Your task to perform on an android device: clear all cookies in the chrome app Image 0: 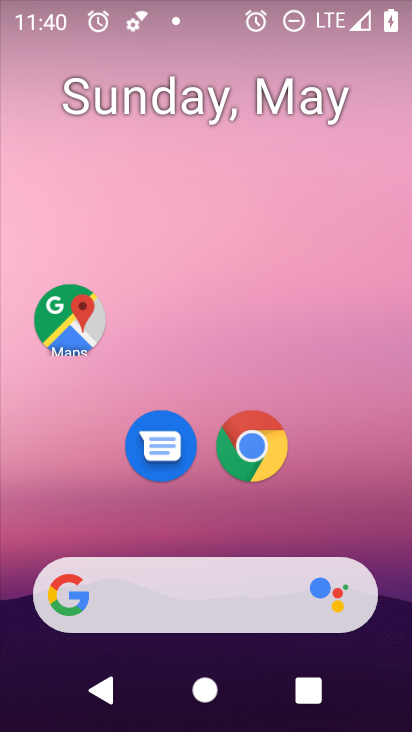
Step 0: drag from (317, 448) to (234, 27)
Your task to perform on an android device: clear all cookies in the chrome app Image 1: 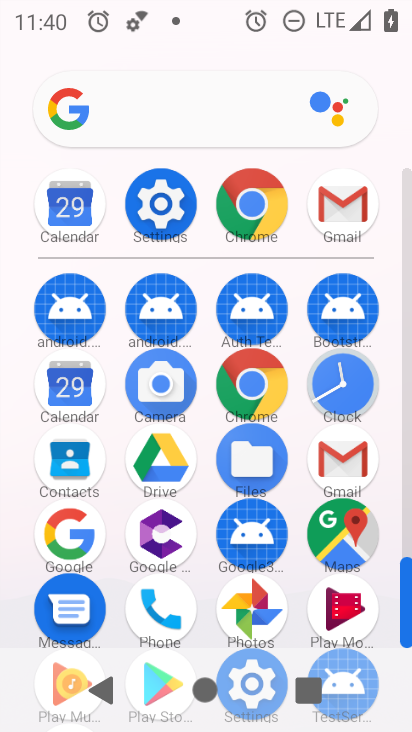
Step 1: drag from (16, 517) to (7, 240)
Your task to perform on an android device: clear all cookies in the chrome app Image 2: 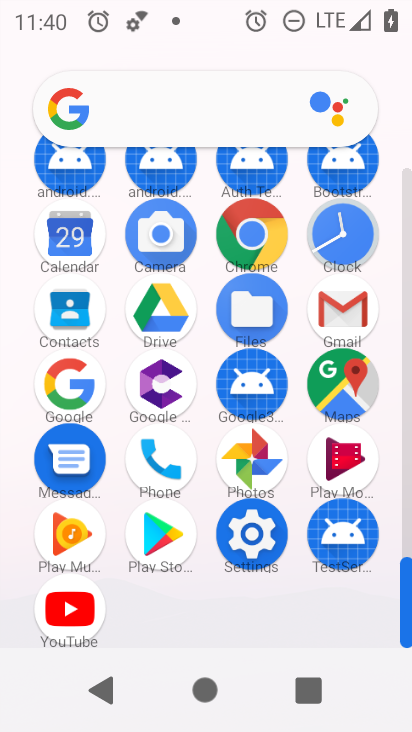
Step 2: click (246, 226)
Your task to perform on an android device: clear all cookies in the chrome app Image 3: 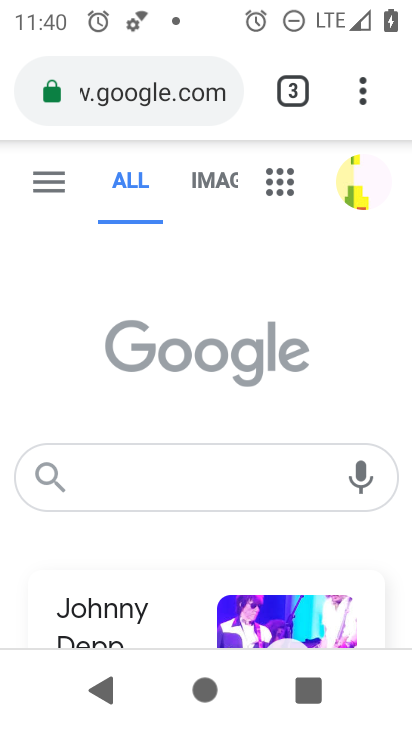
Step 3: drag from (361, 90) to (160, 471)
Your task to perform on an android device: clear all cookies in the chrome app Image 4: 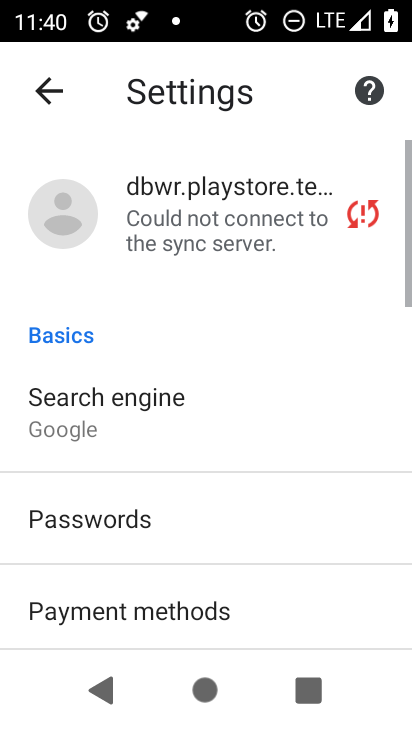
Step 4: drag from (209, 526) to (189, 163)
Your task to perform on an android device: clear all cookies in the chrome app Image 5: 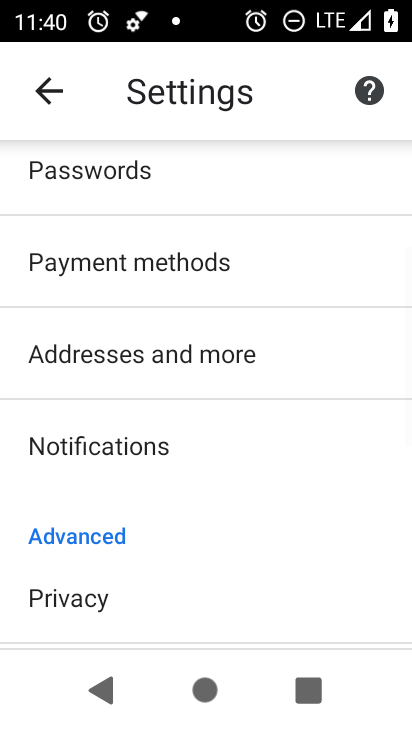
Step 5: drag from (250, 602) to (264, 201)
Your task to perform on an android device: clear all cookies in the chrome app Image 6: 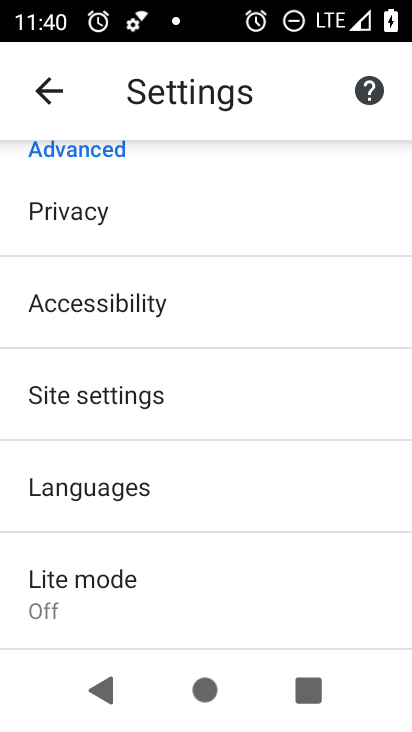
Step 6: drag from (269, 499) to (269, 263)
Your task to perform on an android device: clear all cookies in the chrome app Image 7: 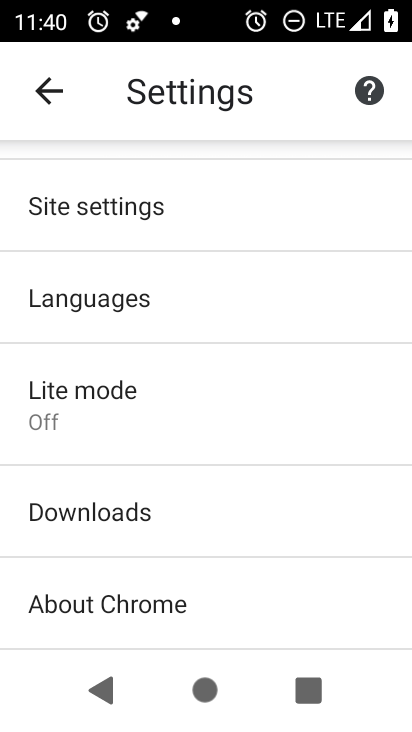
Step 7: click (213, 220)
Your task to perform on an android device: clear all cookies in the chrome app Image 8: 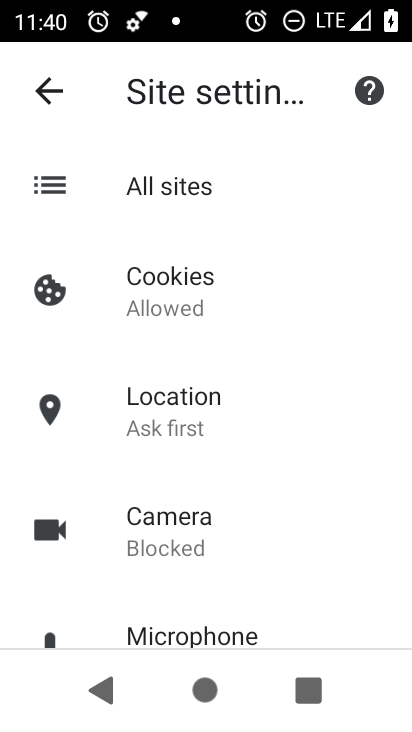
Step 8: click (214, 296)
Your task to perform on an android device: clear all cookies in the chrome app Image 9: 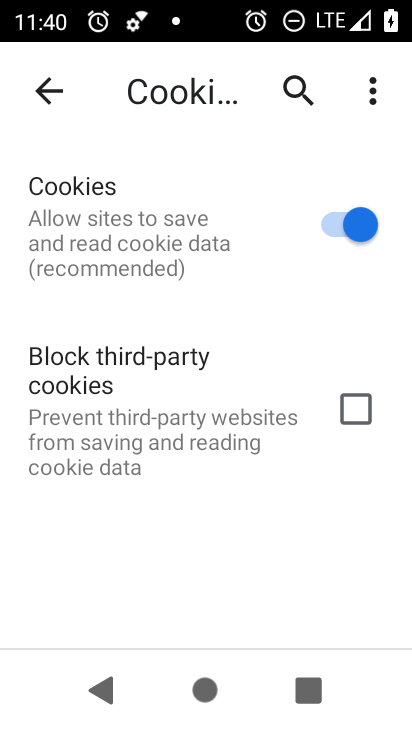
Step 9: click (46, 86)
Your task to perform on an android device: clear all cookies in the chrome app Image 10: 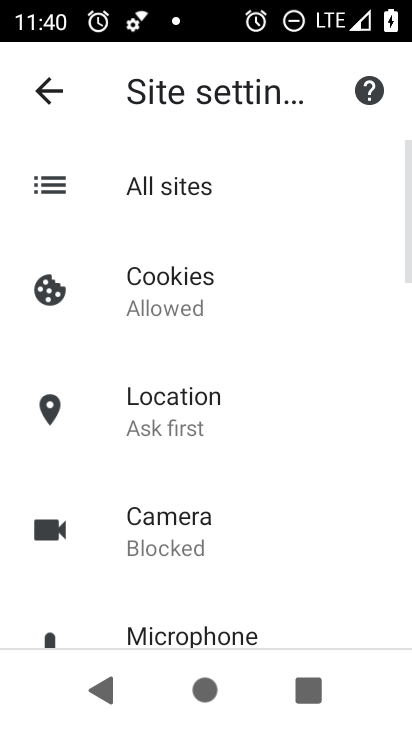
Step 10: drag from (280, 284) to (279, 599)
Your task to perform on an android device: clear all cookies in the chrome app Image 11: 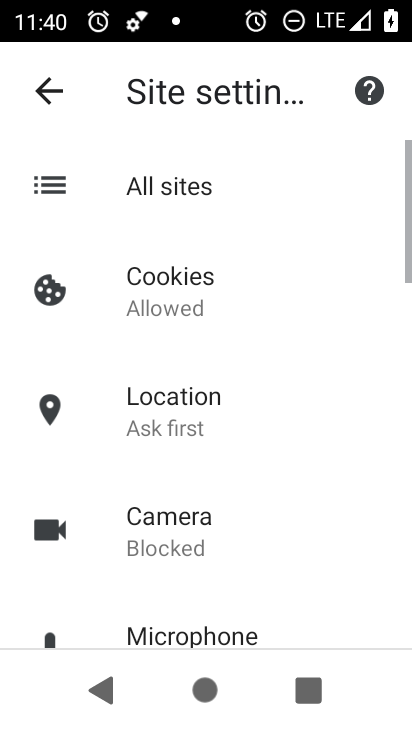
Step 11: drag from (279, 569) to (271, 161)
Your task to perform on an android device: clear all cookies in the chrome app Image 12: 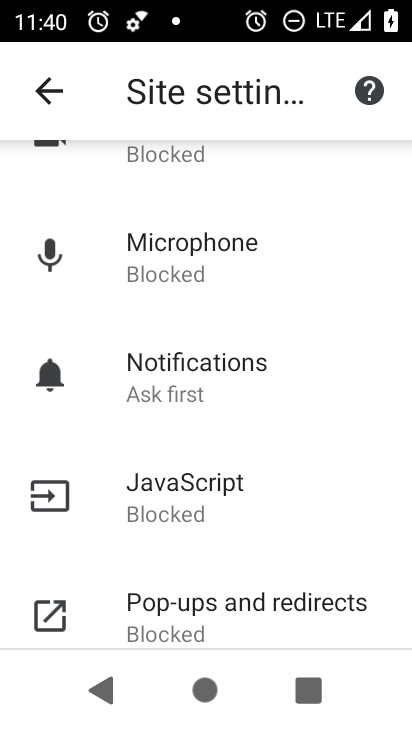
Step 12: drag from (291, 594) to (298, 222)
Your task to perform on an android device: clear all cookies in the chrome app Image 13: 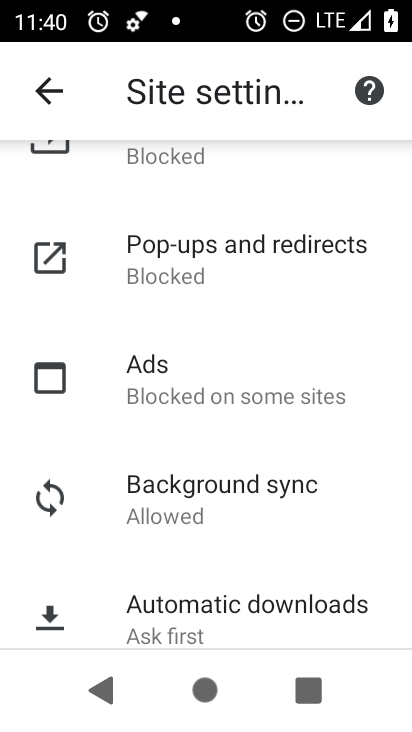
Step 13: drag from (313, 490) to (313, 198)
Your task to perform on an android device: clear all cookies in the chrome app Image 14: 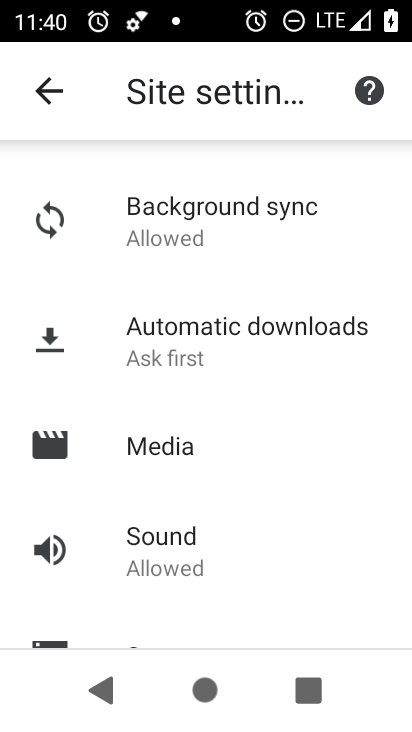
Step 14: drag from (299, 545) to (315, 171)
Your task to perform on an android device: clear all cookies in the chrome app Image 15: 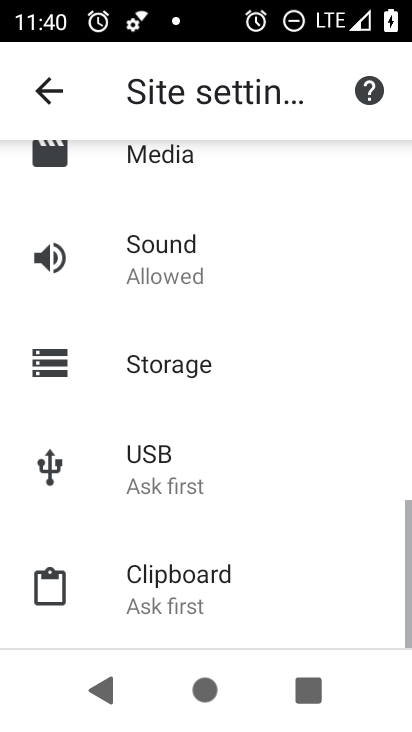
Step 15: drag from (248, 566) to (264, 166)
Your task to perform on an android device: clear all cookies in the chrome app Image 16: 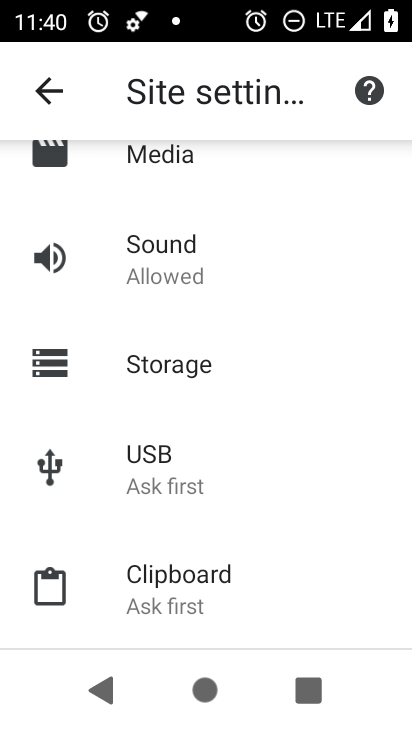
Step 16: drag from (273, 222) to (258, 655)
Your task to perform on an android device: clear all cookies in the chrome app Image 17: 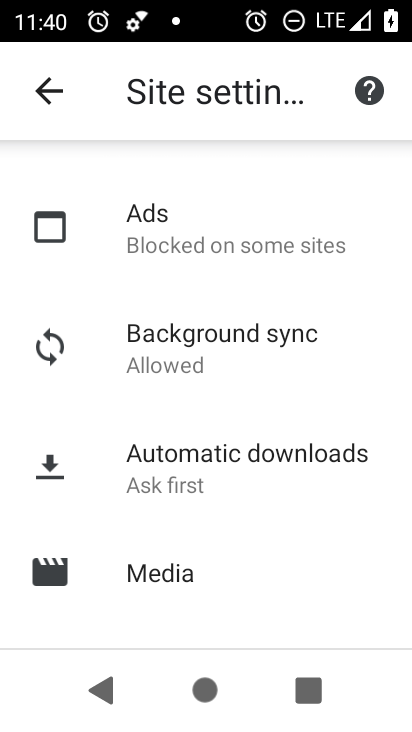
Step 17: drag from (252, 223) to (283, 612)
Your task to perform on an android device: clear all cookies in the chrome app Image 18: 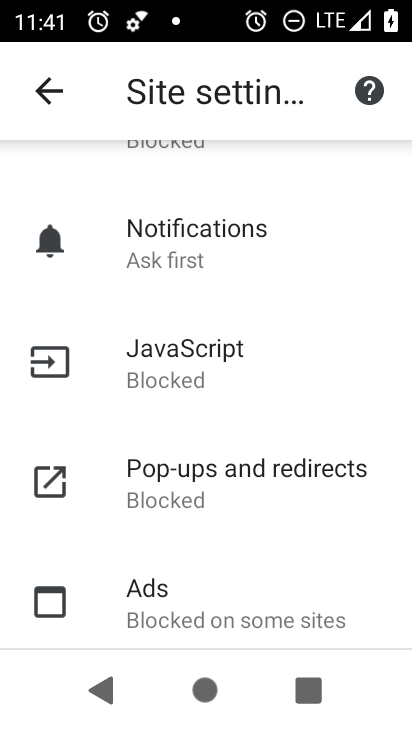
Step 18: drag from (281, 281) to (266, 598)
Your task to perform on an android device: clear all cookies in the chrome app Image 19: 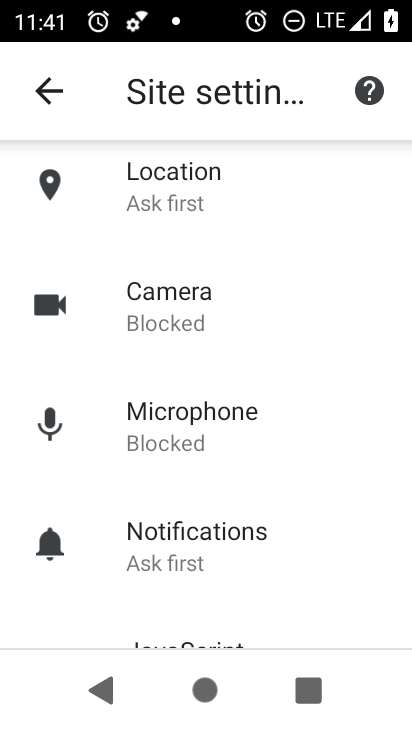
Step 19: drag from (285, 264) to (285, 590)
Your task to perform on an android device: clear all cookies in the chrome app Image 20: 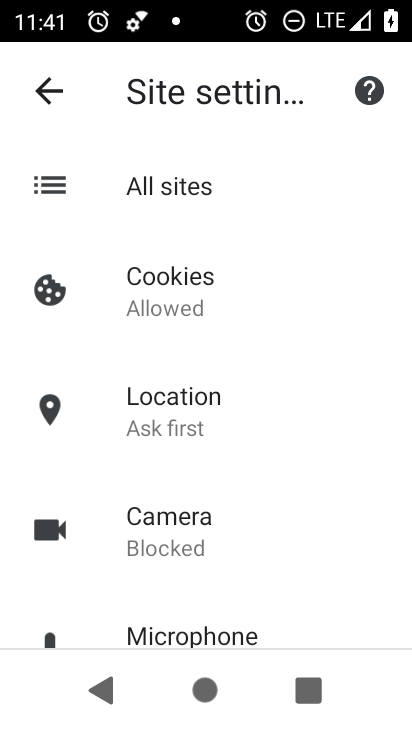
Step 20: click (179, 276)
Your task to perform on an android device: clear all cookies in the chrome app Image 21: 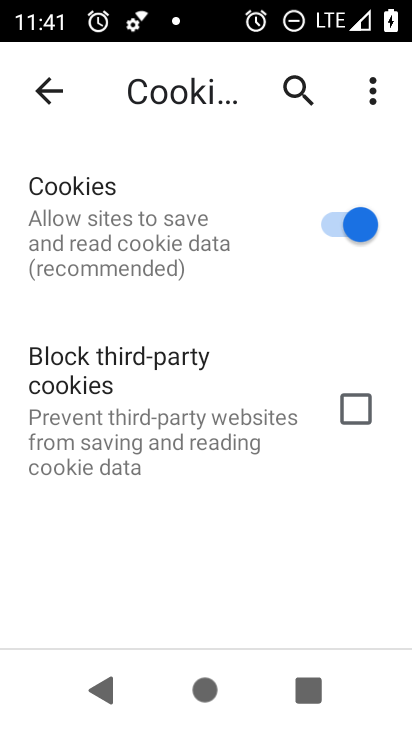
Step 21: click (40, 94)
Your task to perform on an android device: clear all cookies in the chrome app Image 22: 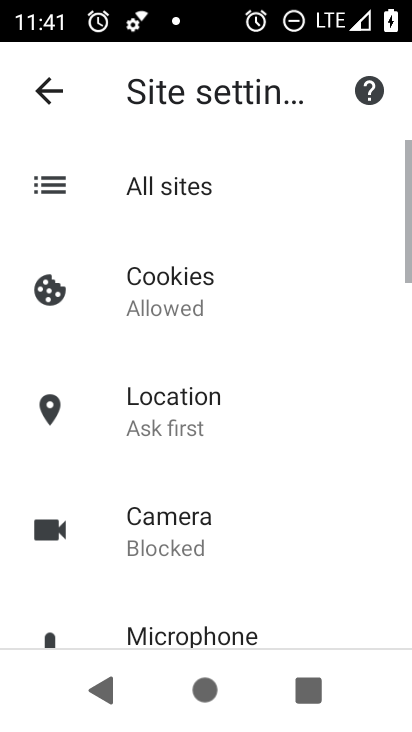
Step 22: drag from (262, 251) to (260, 542)
Your task to perform on an android device: clear all cookies in the chrome app Image 23: 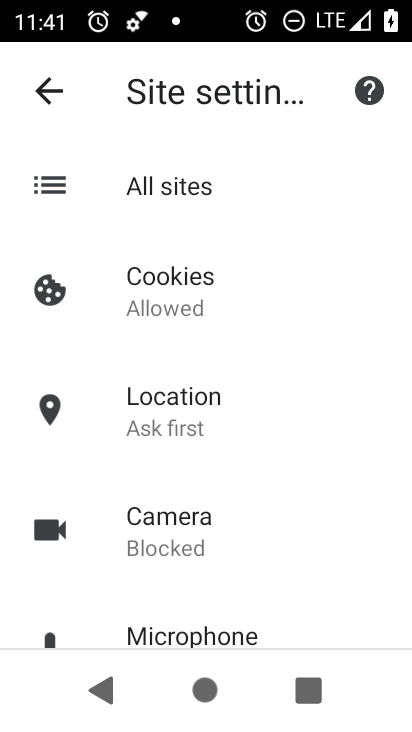
Step 23: click (62, 99)
Your task to perform on an android device: clear all cookies in the chrome app Image 24: 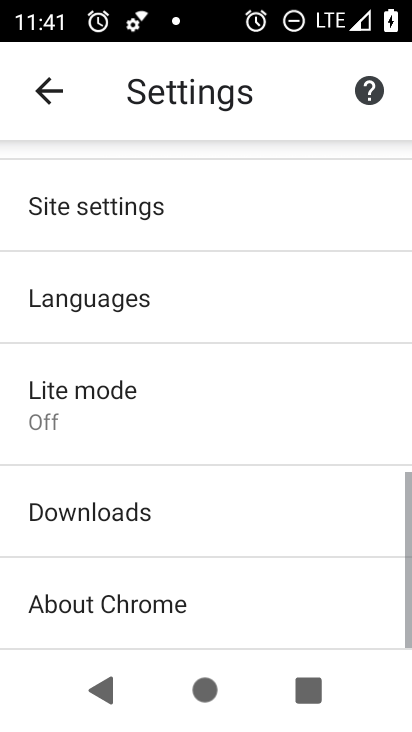
Step 24: drag from (242, 221) to (253, 573)
Your task to perform on an android device: clear all cookies in the chrome app Image 25: 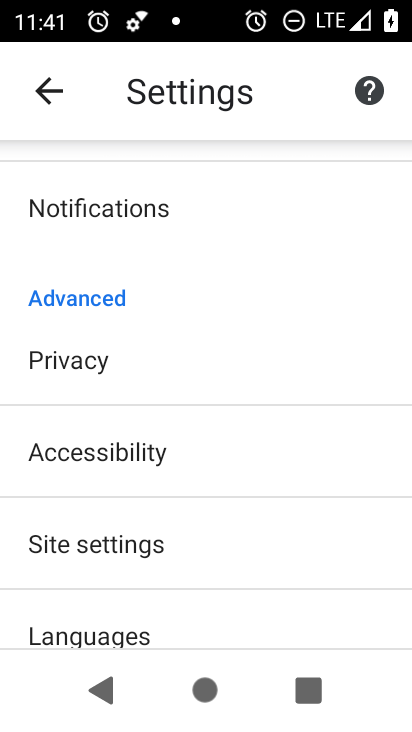
Step 25: click (116, 364)
Your task to perform on an android device: clear all cookies in the chrome app Image 26: 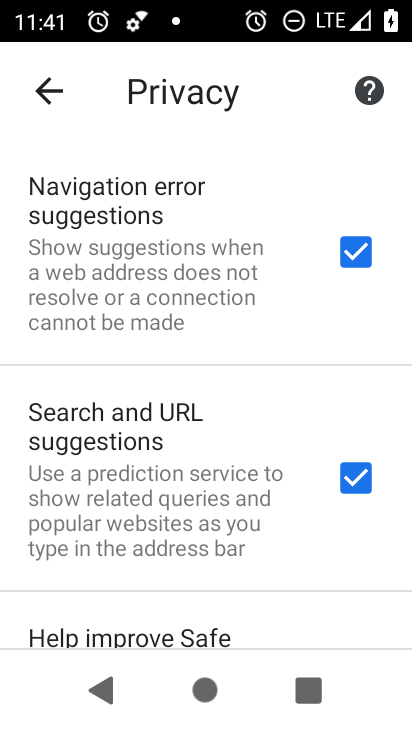
Step 26: drag from (267, 448) to (324, 87)
Your task to perform on an android device: clear all cookies in the chrome app Image 27: 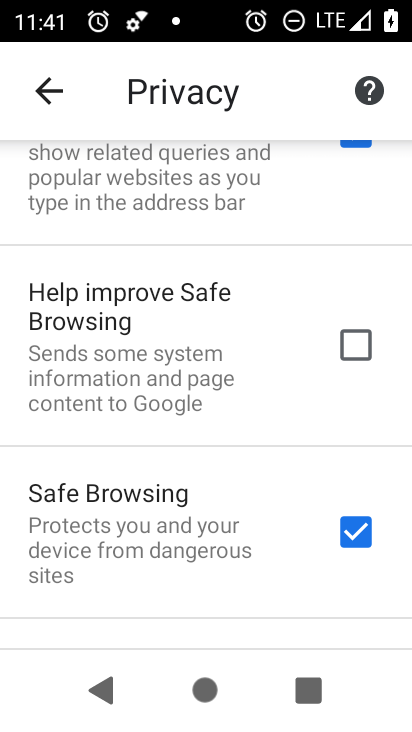
Step 27: drag from (253, 485) to (250, 220)
Your task to perform on an android device: clear all cookies in the chrome app Image 28: 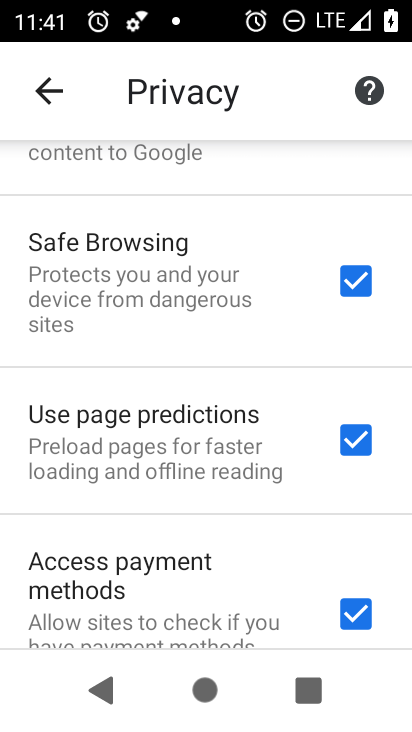
Step 28: drag from (238, 527) to (257, 150)
Your task to perform on an android device: clear all cookies in the chrome app Image 29: 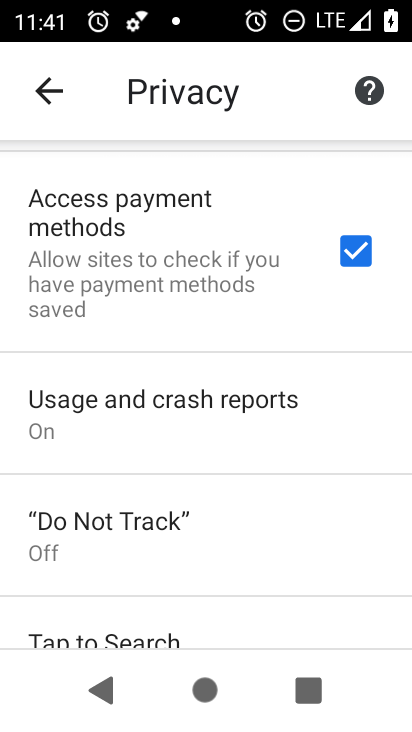
Step 29: drag from (182, 558) to (204, 220)
Your task to perform on an android device: clear all cookies in the chrome app Image 30: 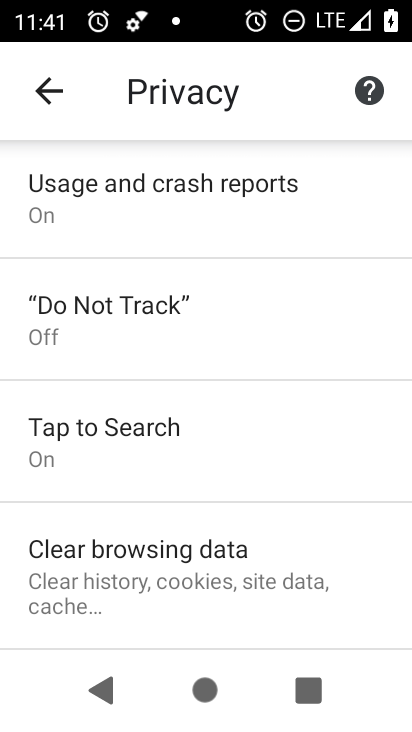
Step 30: click (234, 582)
Your task to perform on an android device: clear all cookies in the chrome app Image 31: 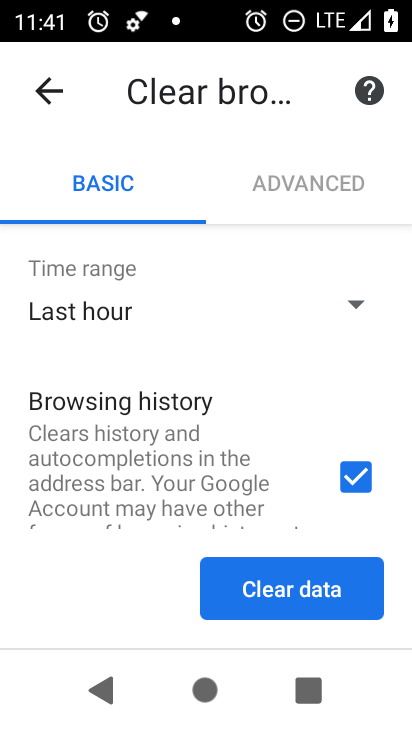
Step 31: drag from (179, 465) to (198, 269)
Your task to perform on an android device: clear all cookies in the chrome app Image 32: 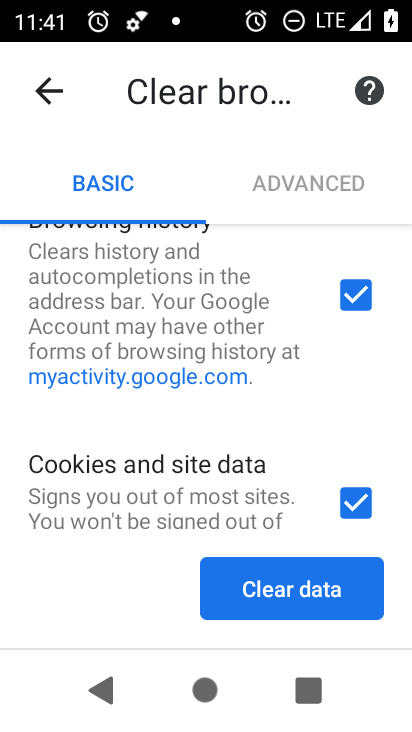
Step 32: drag from (239, 509) to (244, 212)
Your task to perform on an android device: clear all cookies in the chrome app Image 33: 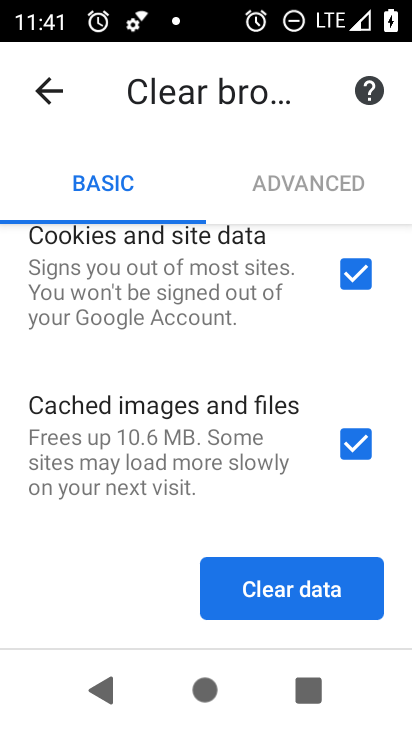
Step 33: click (285, 582)
Your task to perform on an android device: clear all cookies in the chrome app Image 34: 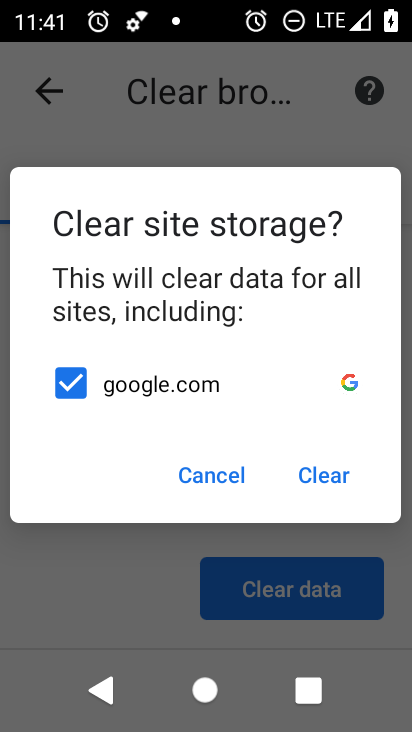
Step 34: click (306, 475)
Your task to perform on an android device: clear all cookies in the chrome app Image 35: 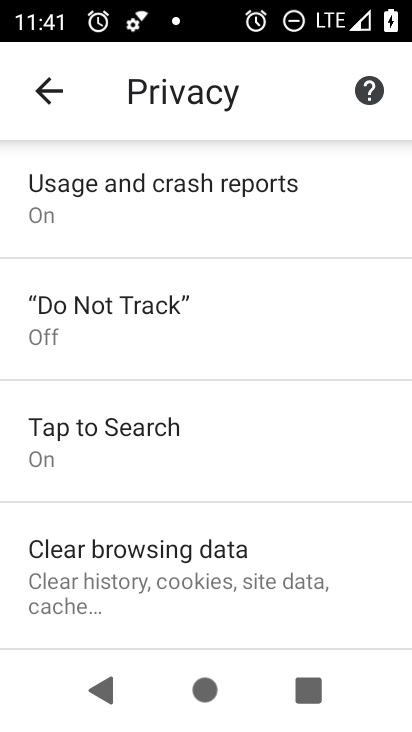
Step 35: task complete